Your task to perform on an android device: clear history in the chrome app Image 0: 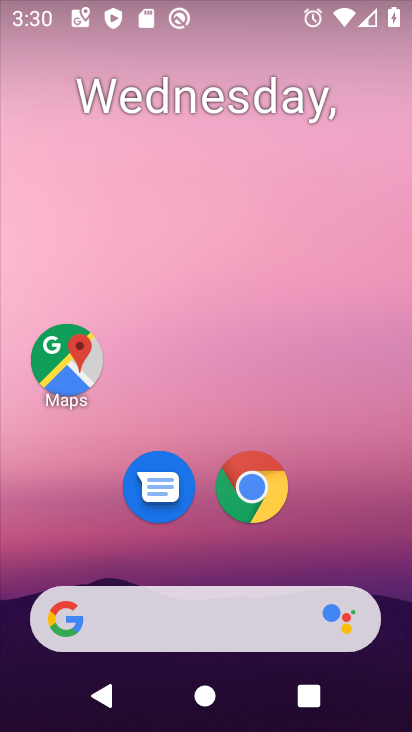
Step 0: drag from (361, 548) to (366, 263)
Your task to perform on an android device: clear history in the chrome app Image 1: 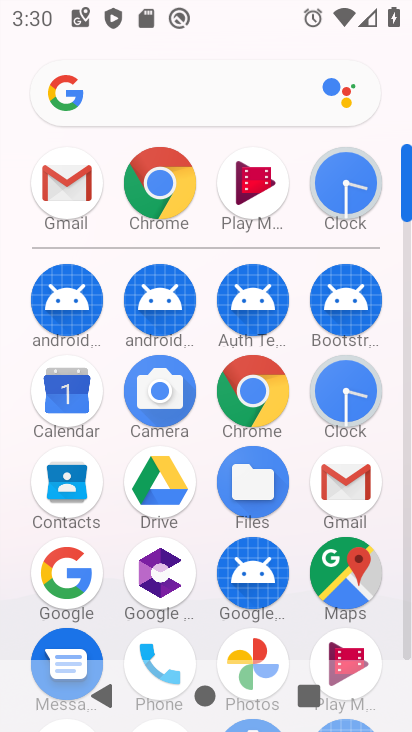
Step 1: click (264, 407)
Your task to perform on an android device: clear history in the chrome app Image 2: 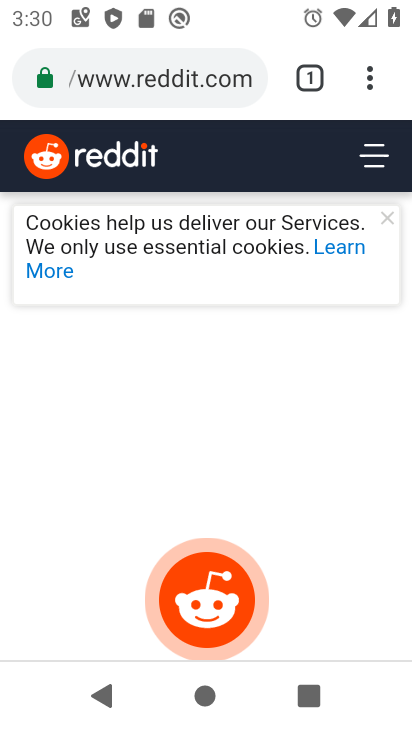
Step 2: click (367, 86)
Your task to perform on an android device: clear history in the chrome app Image 3: 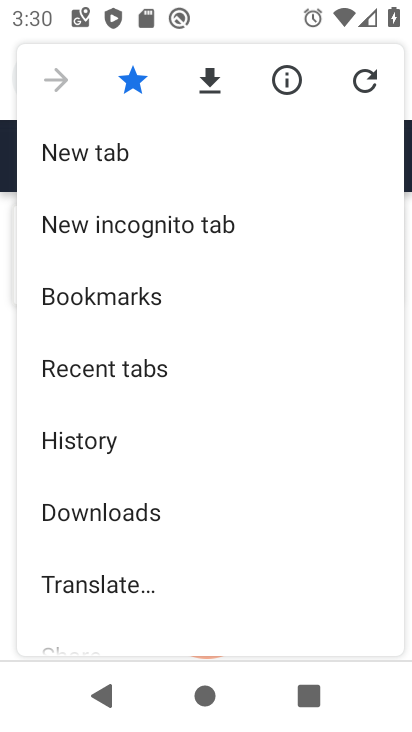
Step 3: click (123, 448)
Your task to perform on an android device: clear history in the chrome app Image 4: 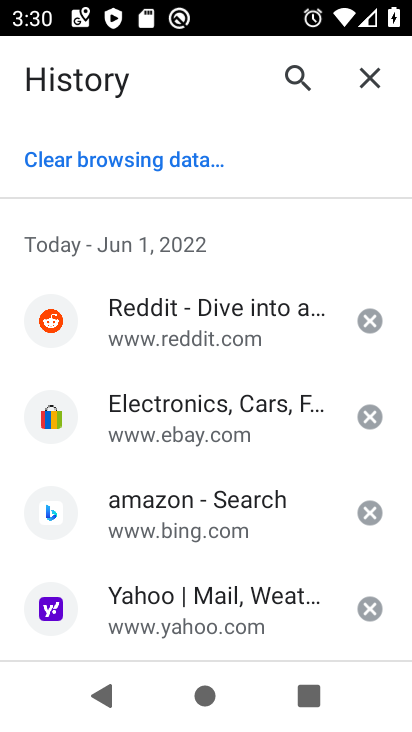
Step 4: click (164, 162)
Your task to perform on an android device: clear history in the chrome app Image 5: 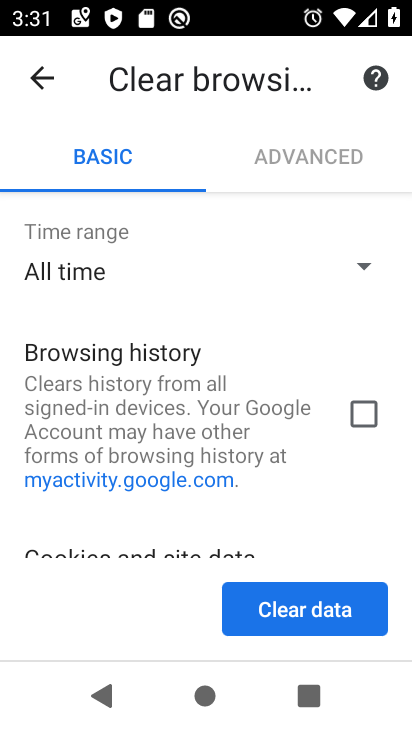
Step 5: click (352, 420)
Your task to perform on an android device: clear history in the chrome app Image 6: 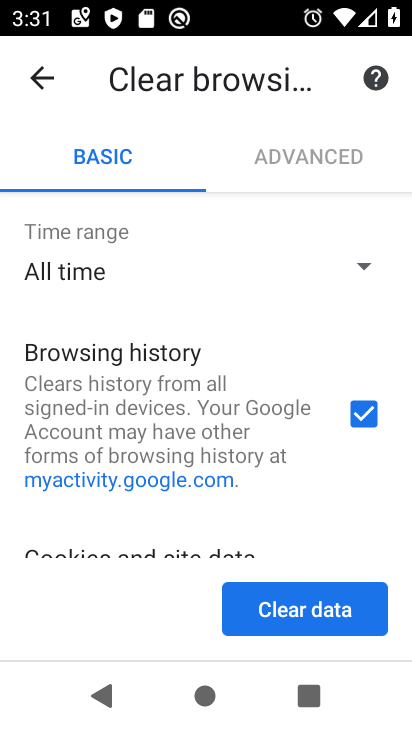
Step 6: click (317, 607)
Your task to perform on an android device: clear history in the chrome app Image 7: 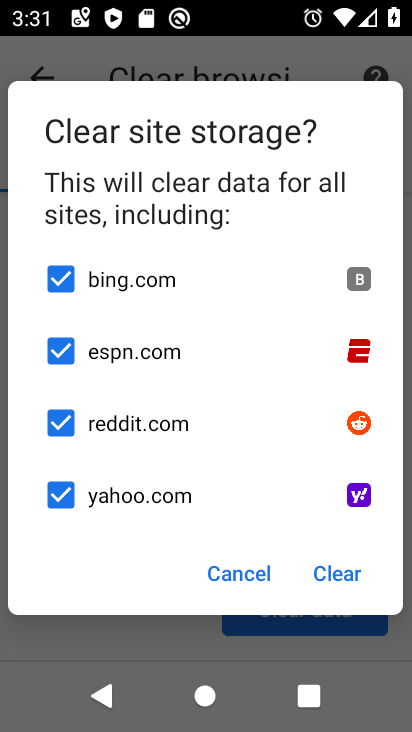
Step 7: click (339, 580)
Your task to perform on an android device: clear history in the chrome app Image 8: 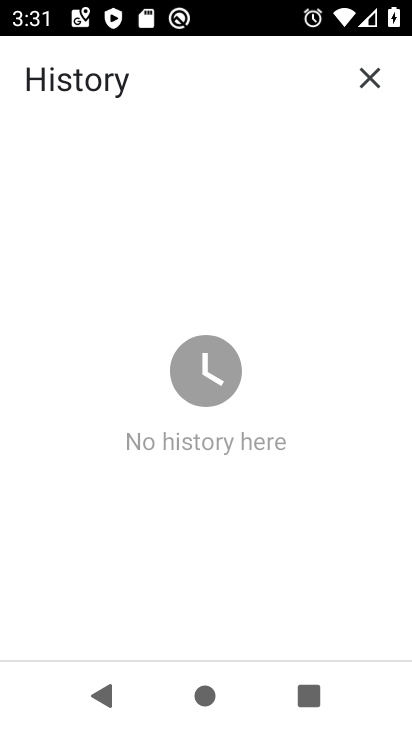
Step 8: task complete